Your task to perform on an android device: Clear all items from cart on newegg. Image 0: 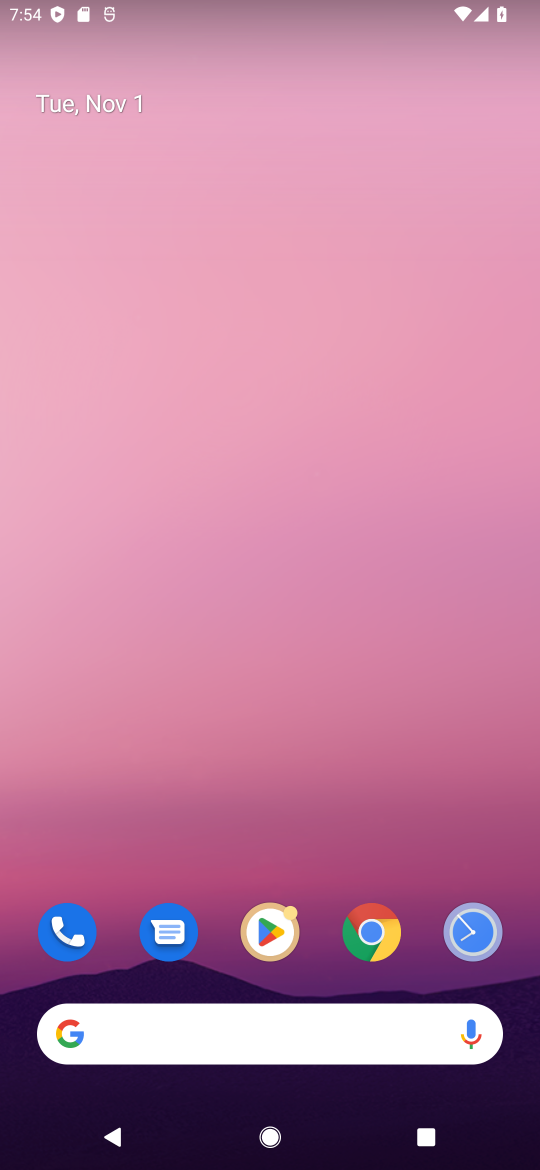
Step 0: click (363, 935)
Your task to perform on an android device: Clear all items from cart on newegg. Image 1: 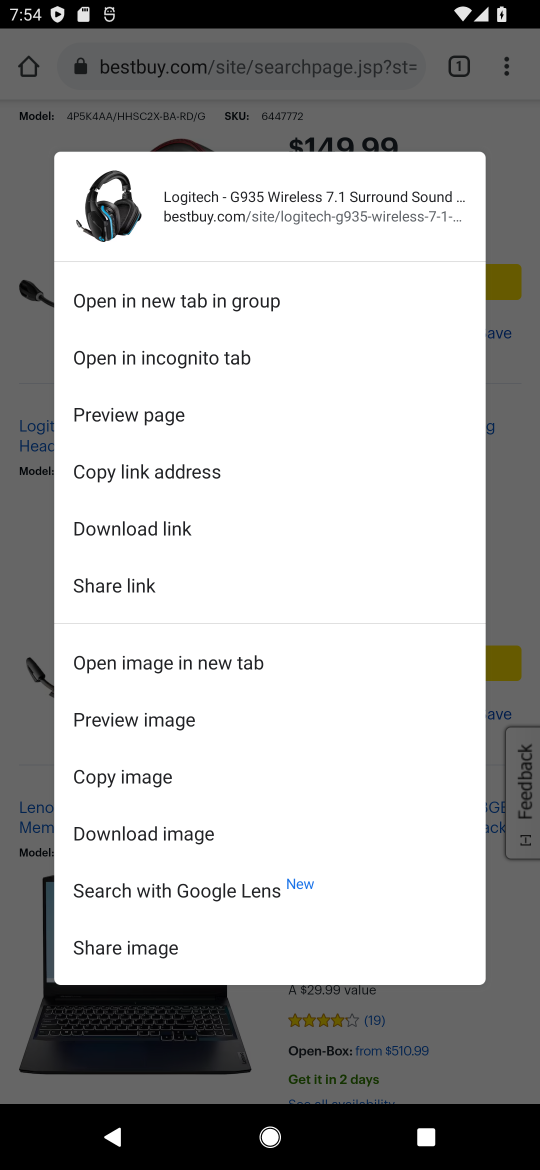
Step 1: press home button
Your task to perform on an android device: Clear all items from cart on newegg. Image 2: 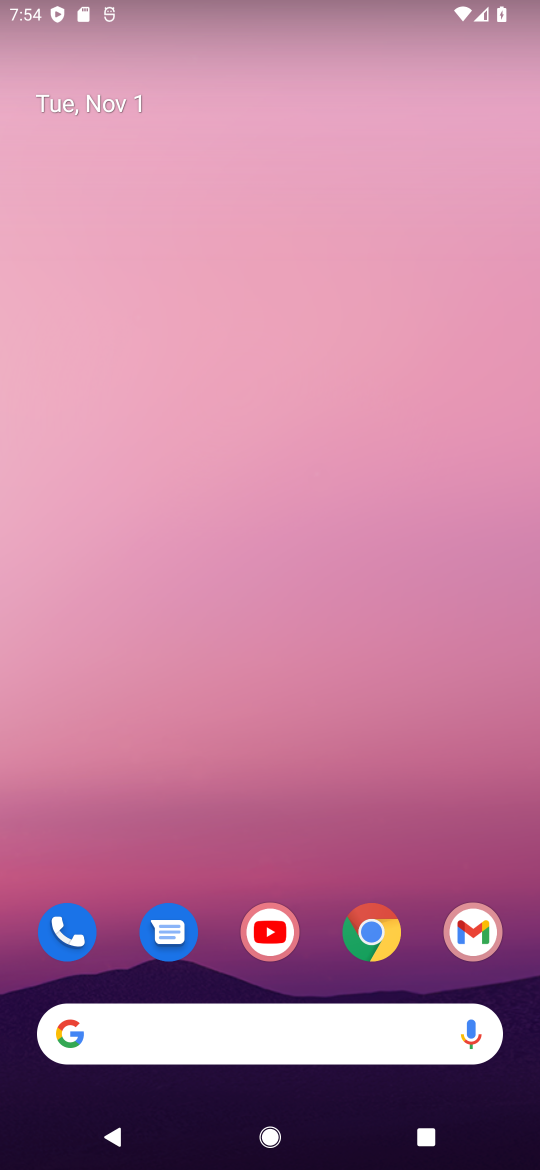
Step 2: click (376, 954)
Your task to perform on an android device: Clear all items from cart on newegg. Image 3: 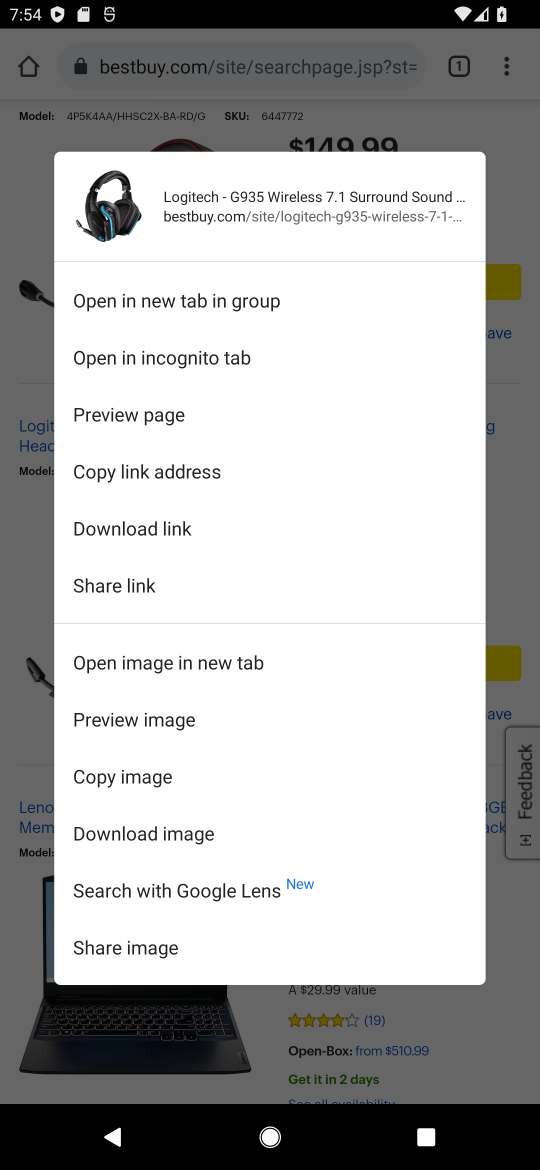
Step 3: click (2, 144)
Your task to perform on an android device: Clear all items from cart on newegg. Image 4: 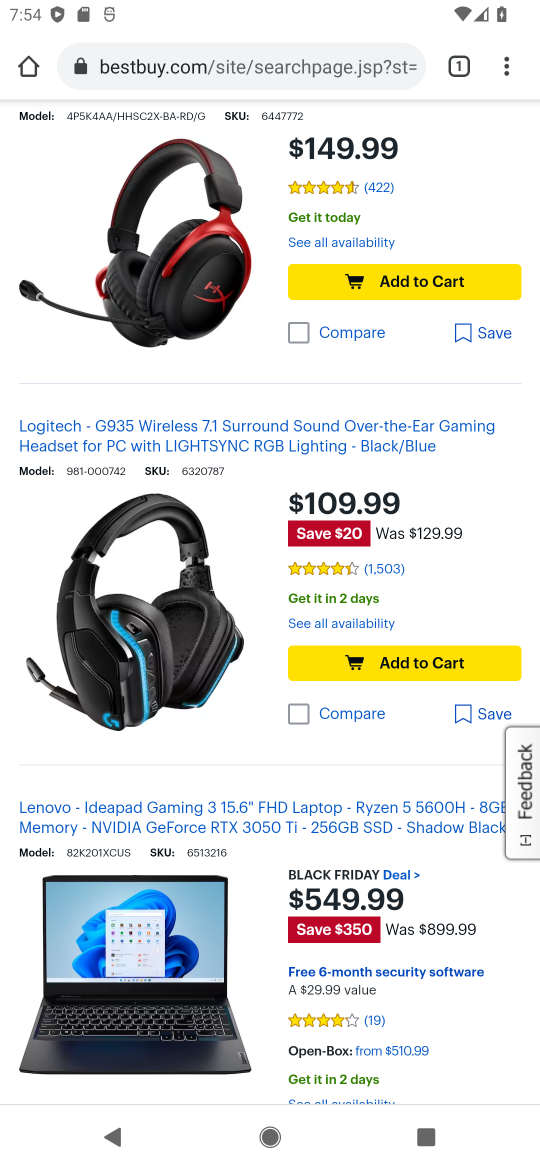
Step 4: click (297, 74)
Your task to perform on an android device: Clear all items from cart on newegg. Image 5: 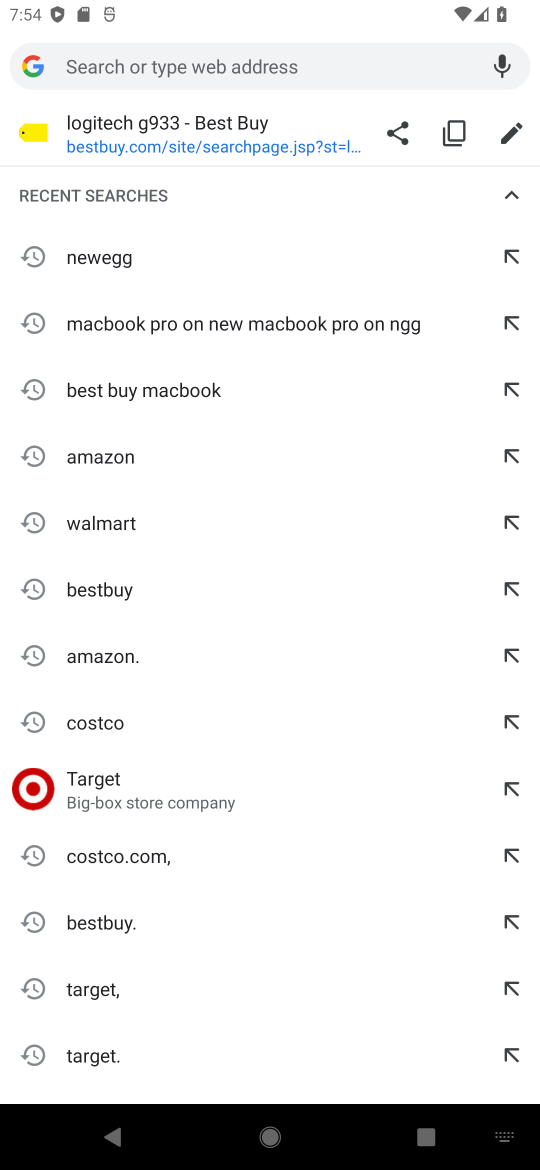
Step 5: click (99, 258)
Your task to perform on an android device: Clear all items from cart on newegg. Image 6: 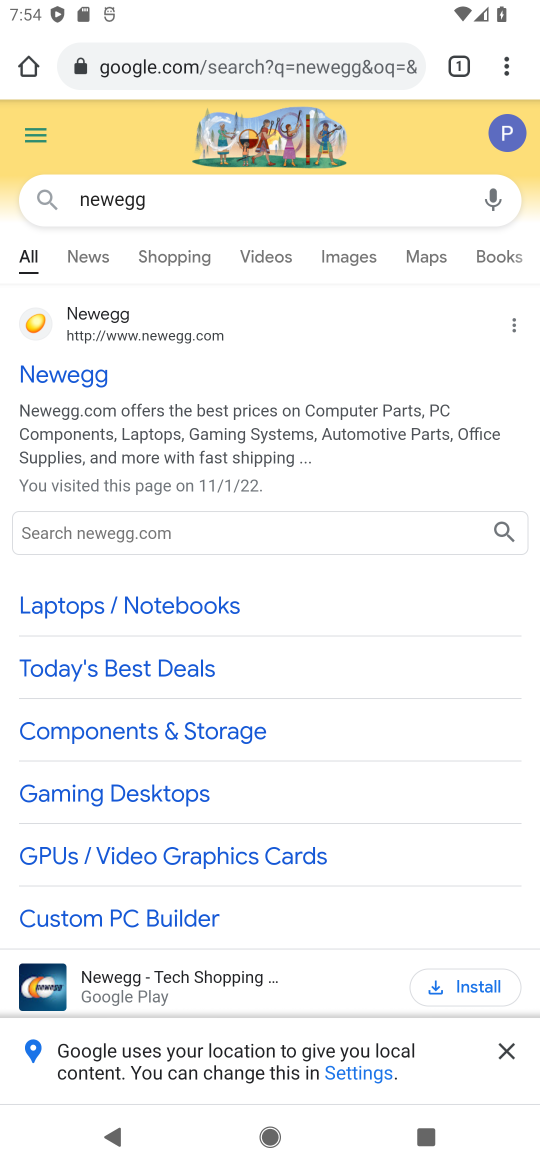
Step 6: click (86, 389)
Your task to perform on an android device: Clear all items from cart on newegg. Image 7: 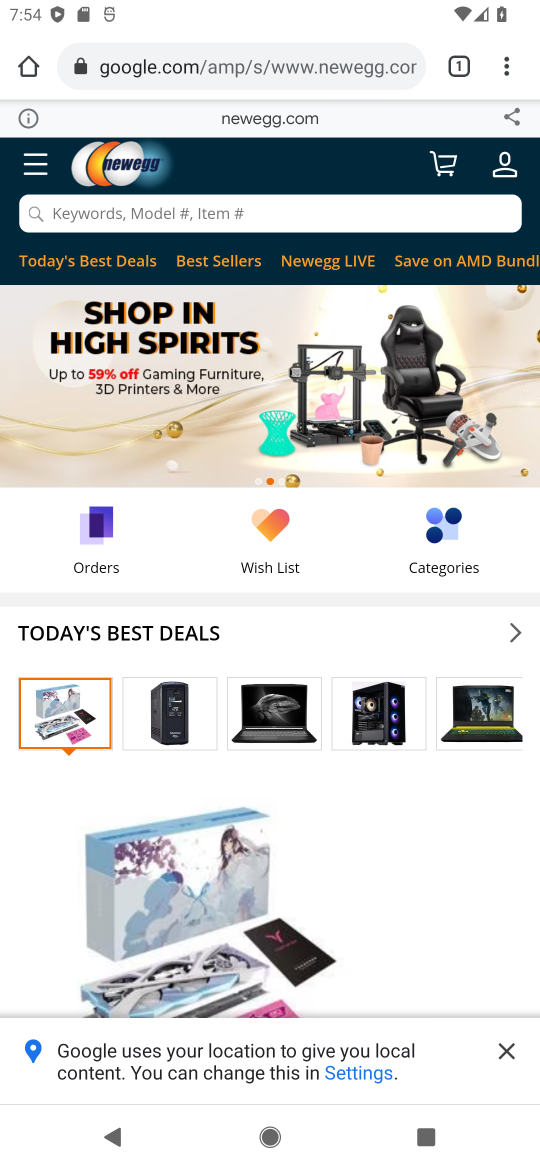
Step 7: click (442, 153)
Your task to perform on an android device: Clear all items from cart on newegg. Image 8: 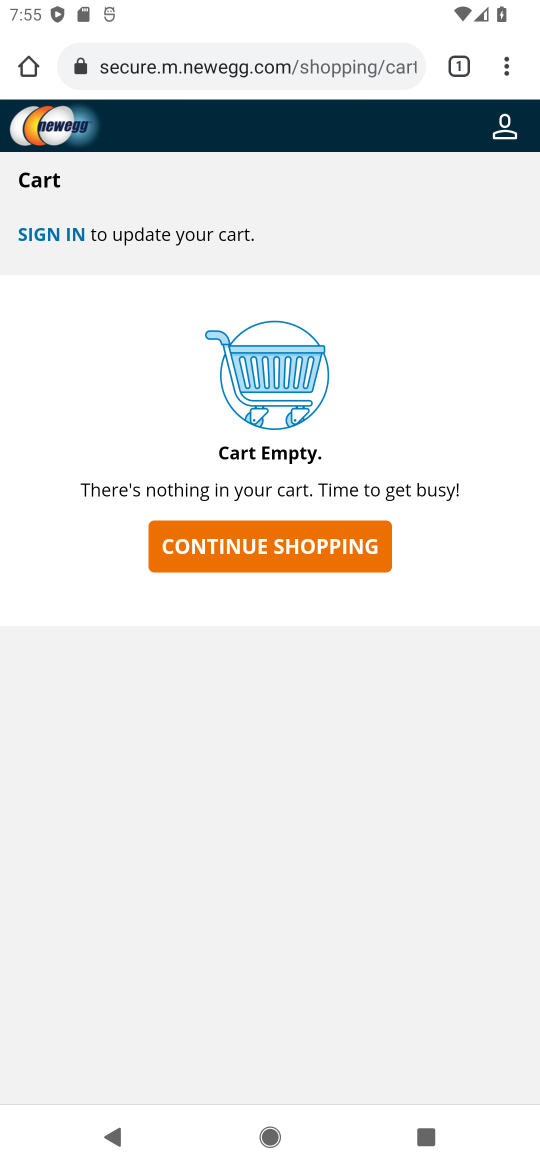
Step 8: task complete